Your task to perform on an android device: turn off priority inbox in the gmail app Image 0: 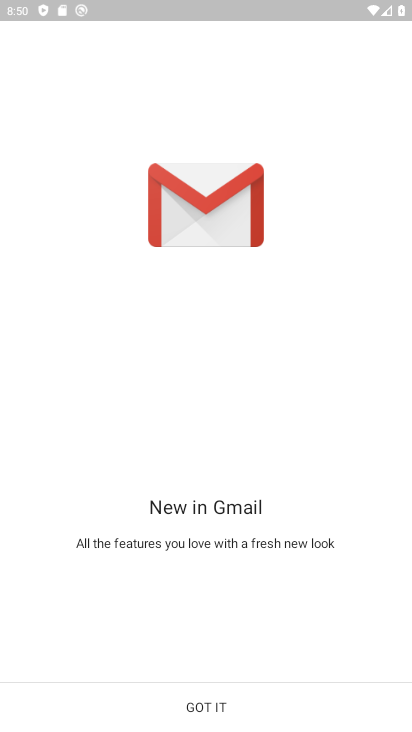
Step 0: press home button
Your task to perform on an android device: turn off priority inbox in the gmail app Image 1: 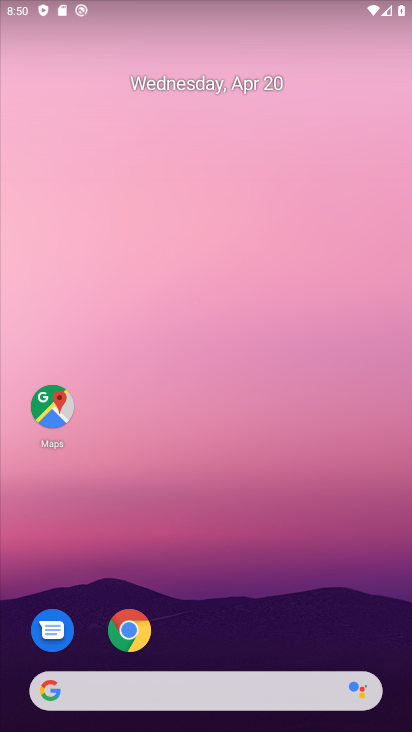
Step 1: drag from (228, 644) to (211, 169)
Your task to perform on an android device: turn off priority inbox in the gmail app Image 2: 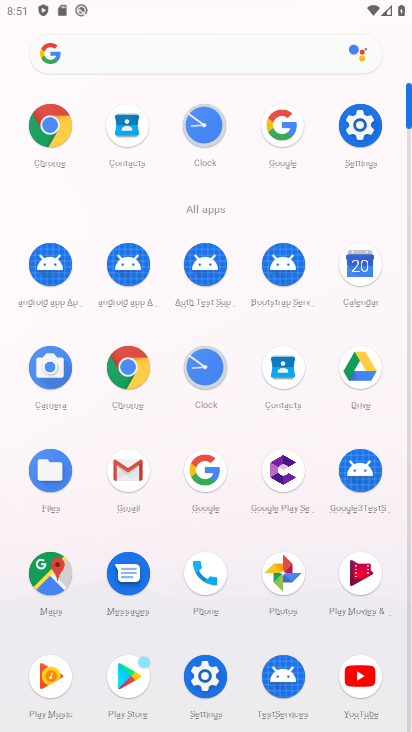
Step 2: click (137, 481)
Your task to perform on an android device: turn off priority inbox in the gmail app Image 3: 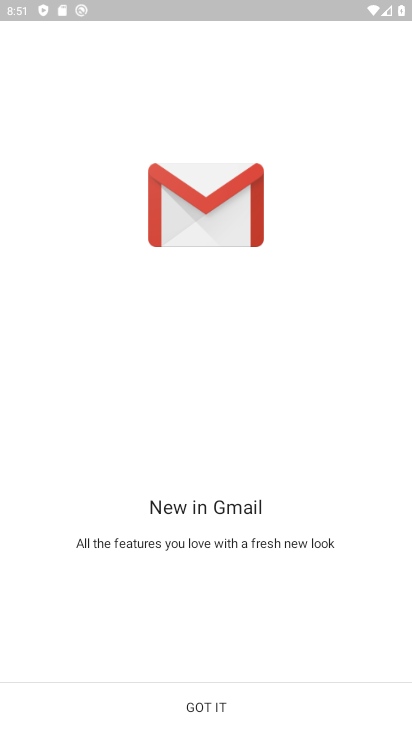
Step 3: click (265, 707)
Your task to perform on an android device: turn off priority inbox in the gmail app Image 4: 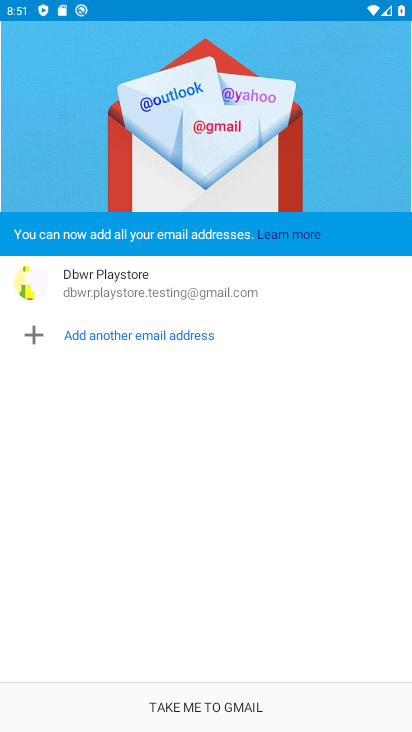
Step 4: click (274, 695)
Your task to perform on an android device: turn off priority inbox in the gmail app Image 5: 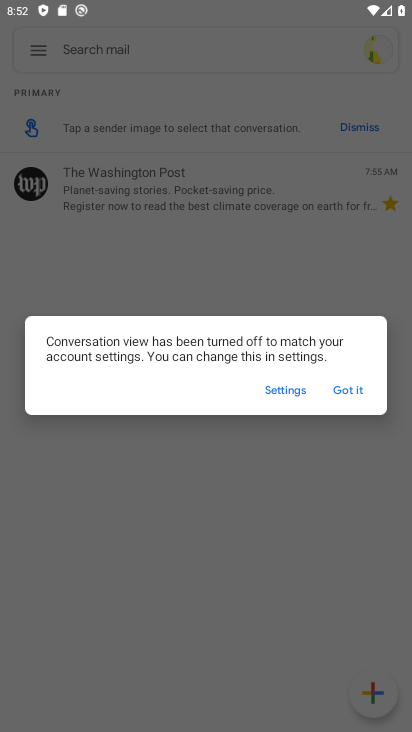
Step 5: click (338, 391)
Your task to perform on an android device: turn off priority inbox in the gmail app Image 6: 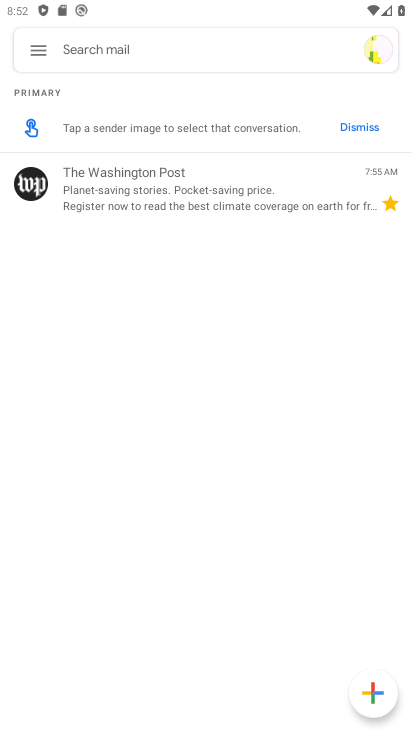
Step 6: click (34, 48)
Your task to perform on an android device: turn off priority inbox in the gmail app Image 7: 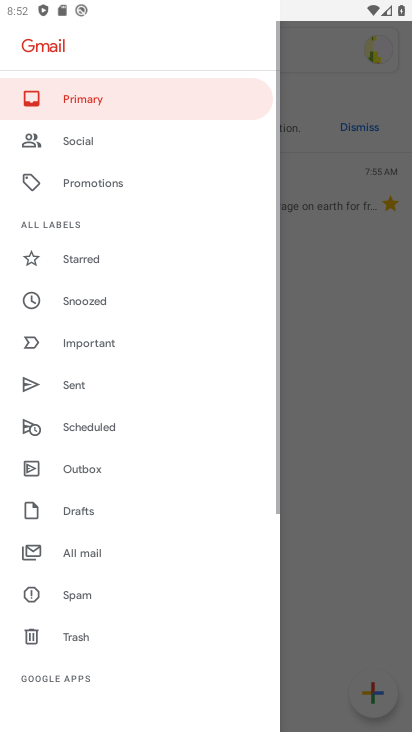
Step 7: drag from (122, 561) to (124, 299)
Your task to perform on an android device: turn off priority inbox in the gmail app Image 8: 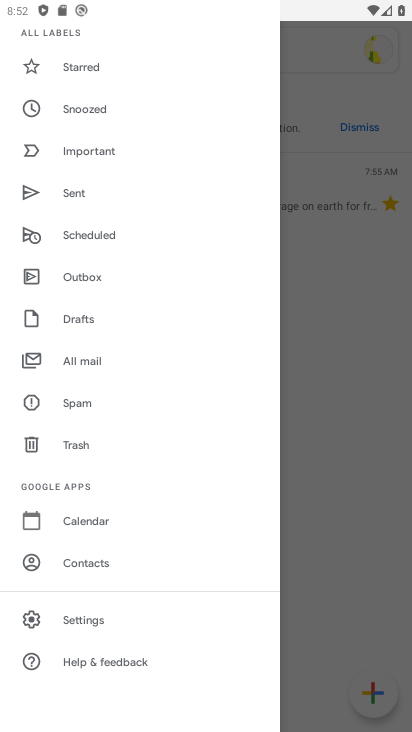
Step 8: click (84, 606)
Your task to perform on an android device: turn off priority inbox in the gmail app Image 9: 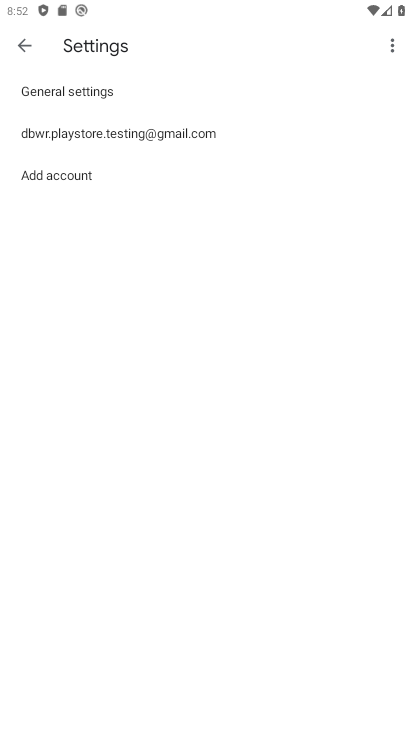
Step 9: click (131, 134)
Your task to perform on an android device: turn off priority inbox in the gmail app Image 10: 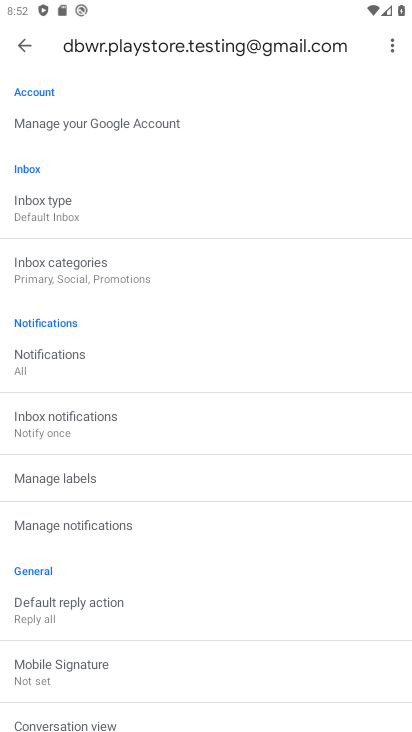
Step 10: click (102, 210)
Your task to perform on an android device: turn off priority inbox in the gmail app Image 11: 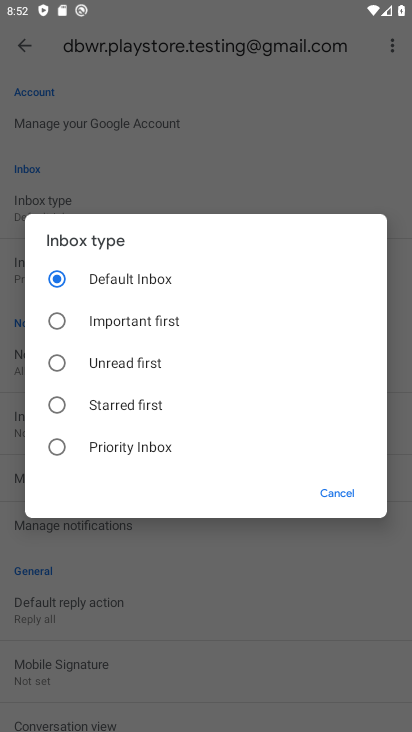
Step 11: task complete